Your task to perform on an android device: turn off data saver in the chrome app Image 0: 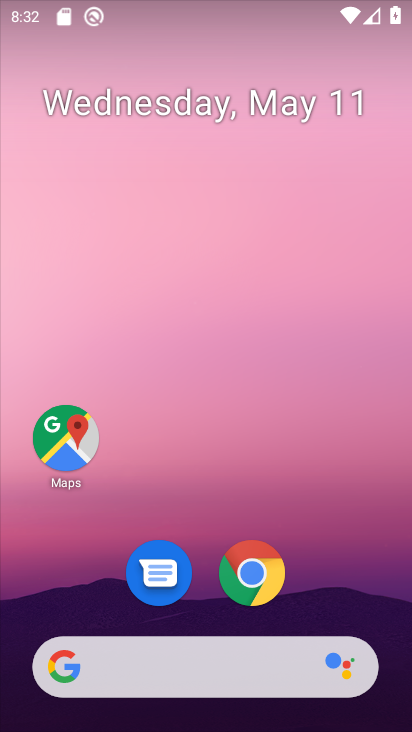
Step 0: click (301, 560)
Your task to perform on an android device: turn off data saver in the chrome app Image 1: 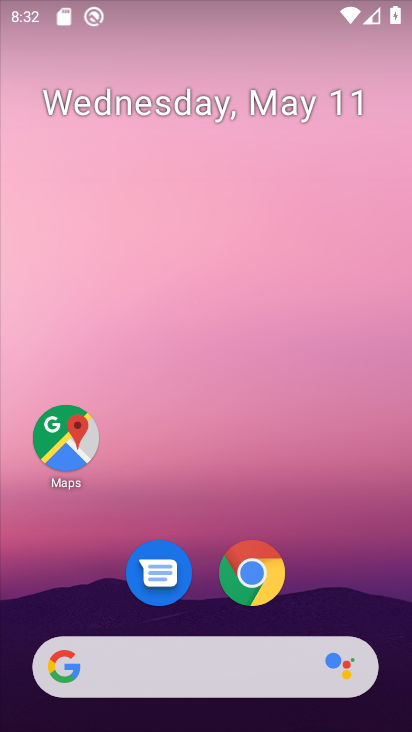
Step 1: click (279, 576)
Your task to perform on an android device: turn off data saver in the chrome app Image 2: 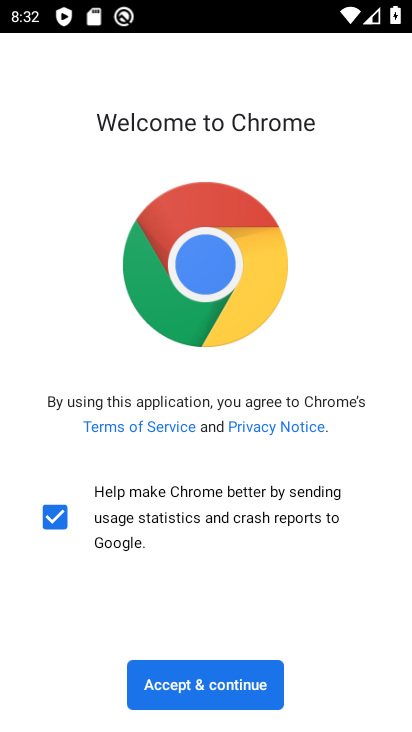
Step 2: click (231, 687)
Your task to perform on an android device: turn off data saver in the chrome app Image 3: 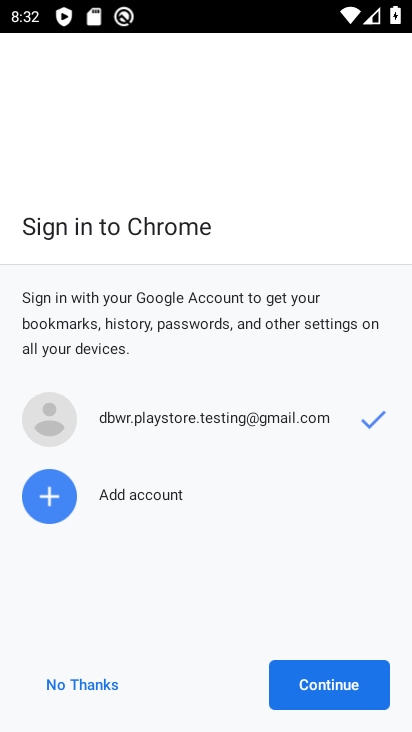
Step 3: click (346, 681)
Your task to perform on an android device: turn off data saver in the chrome app Image 4: 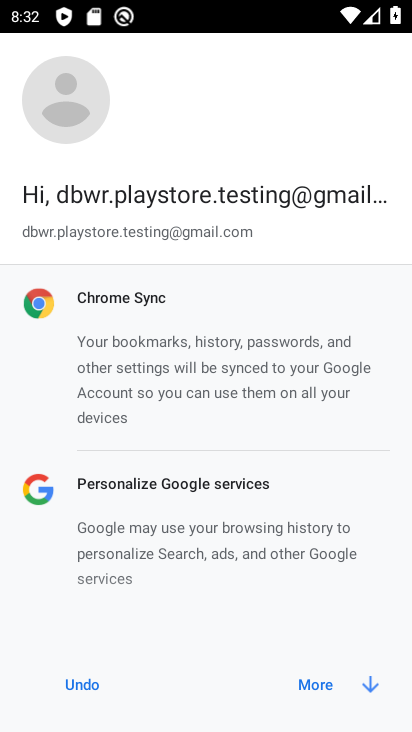
Step 4: click (346, 681)
Your task to perform on an android device: turn off data saver in the chrome app Image 5: 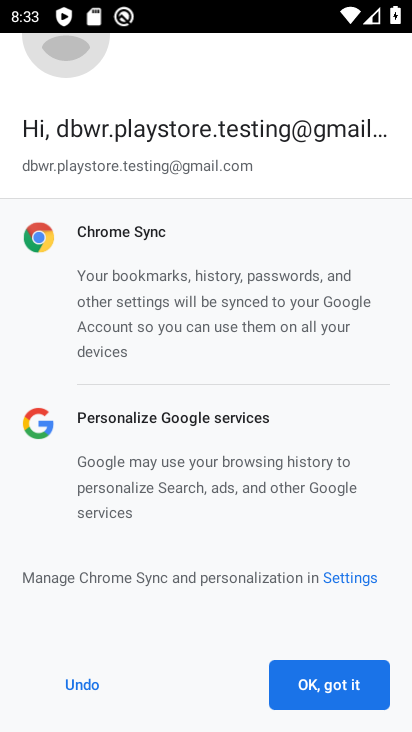
Step 5: click (346, 681)
Your task to perform on an android device: turn off data saver in the chrome app Image 6: 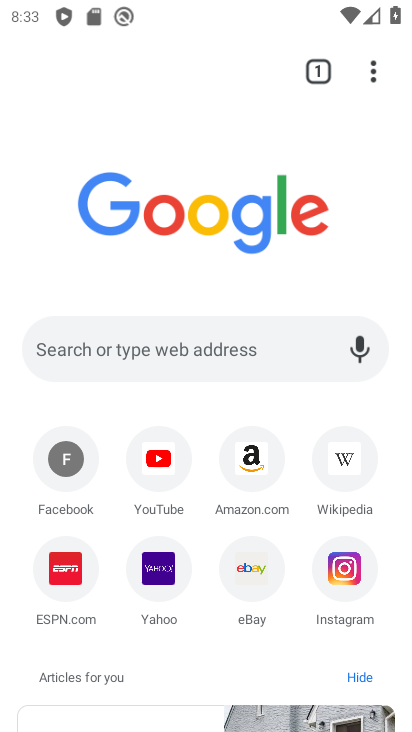
Step 6: click (370, 84)
Your task to perform on an android device: turn off data saver in the chrome app Image 7: 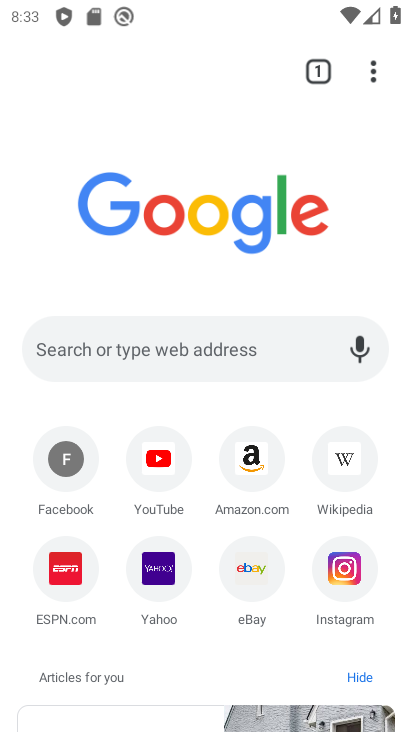
Step 7: click (374, 82)
Your task to perform on an android device: turn off data saver in the chrome app Image 8: 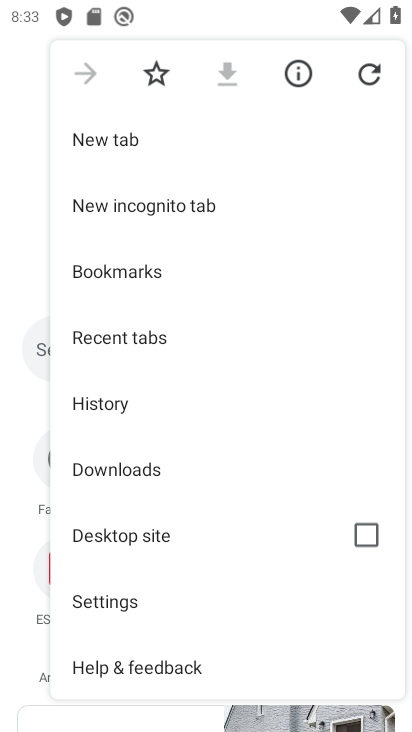
Step 8: click (173, 590)
Your task to perform on an android device: turn off data saver in the chrome app Image 9: 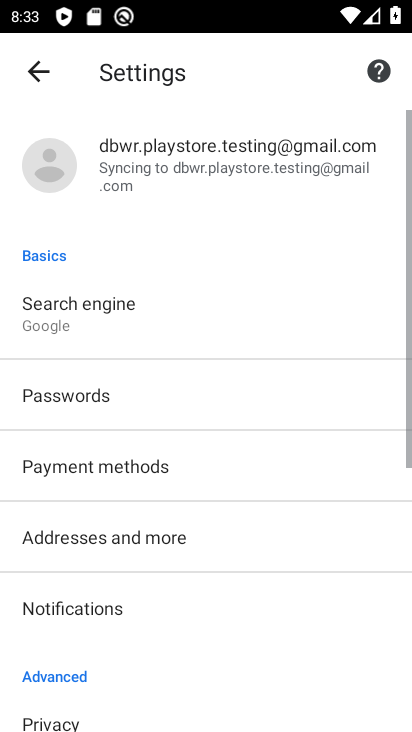
Step 9: drag from (173, 590) to (221, 220)
Your task to perform on an android device: turn off data saver in the chrome app Image 10: 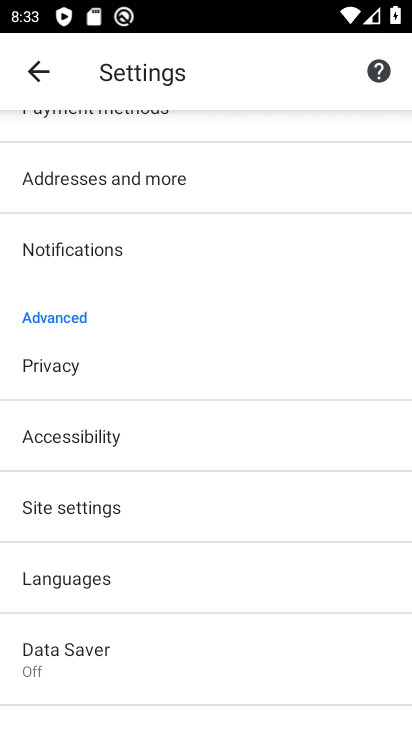
Step 10: drag from (181, 666) to (226, 541)
Your task to perform on an android device: turn off data saver in the chrome app Image 11: 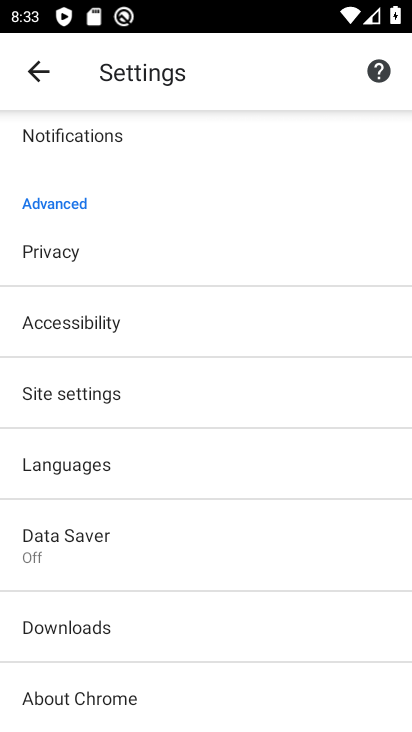
Step 11: click (137, 551)
Your task to perform on an android device: turn off data saver in the chrome app Image 12: 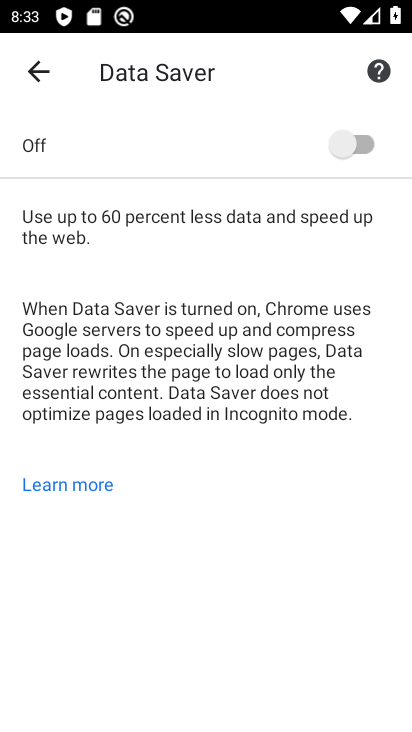
Step 12: click (352, 131)
Your task to perform on an android device: turn off data saver in the chrome app Image 13: 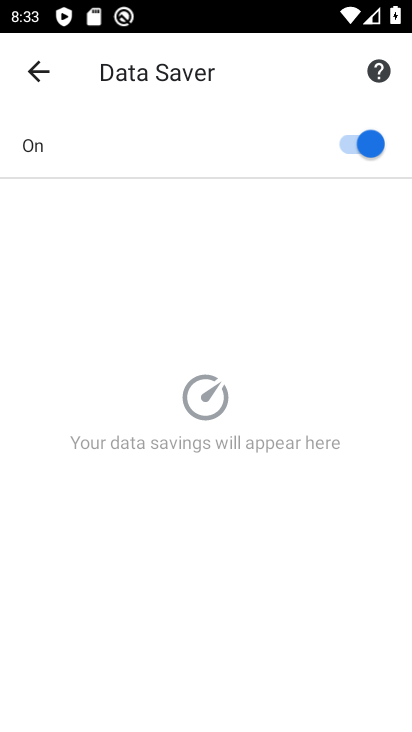
Step 13: task complete